Your task to perform on an android device: Open ESPN.com Image 0: 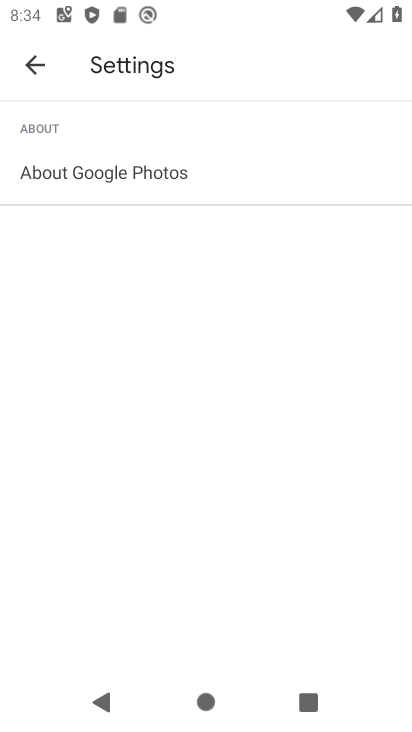
Step 0: press home button
Your task to perform on an android device: Open ESPN.com Image 1: 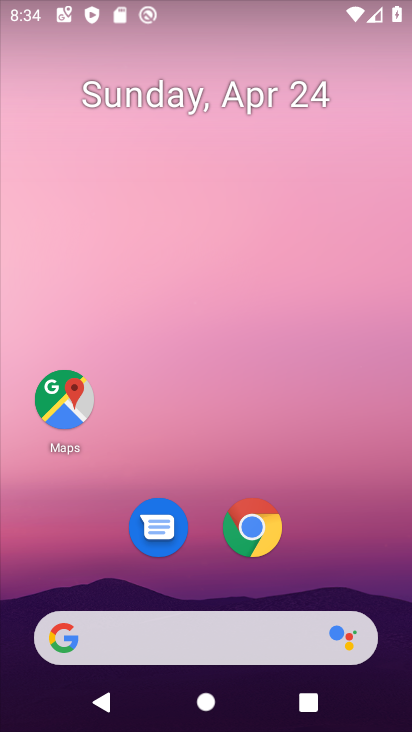
Step 1: drag from (375, 595) to (299, 2)
Your task to perform on an android device: Open ESPN.com Image 2: 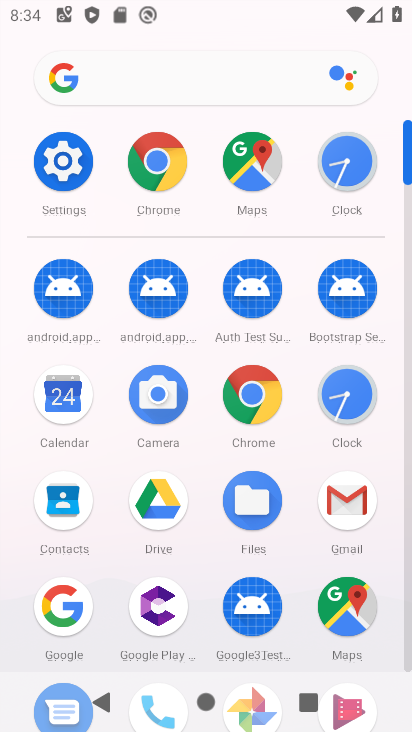
Step 2: click (169, 165)
Your task to perform on an android device: Open ESPN.com Image 3: 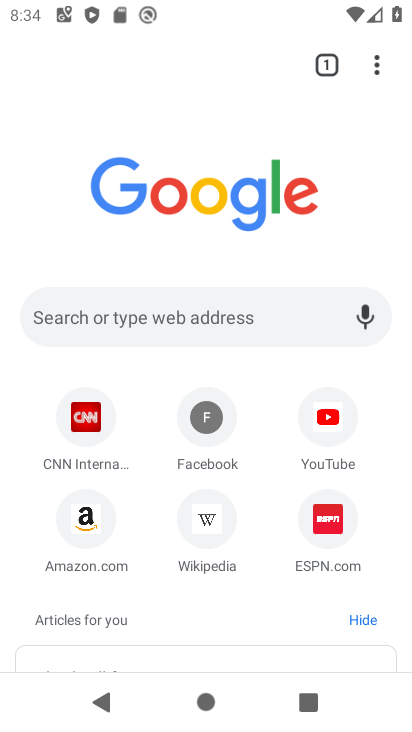
Step 3: click (329, 518)
Your task to perform on an android device: Open ESPN.com Image 4: 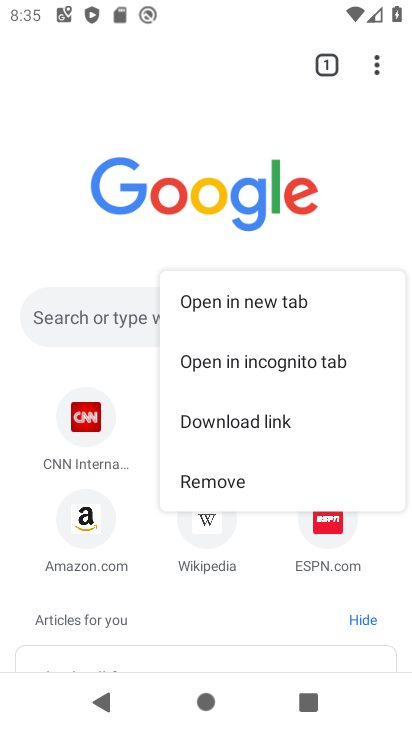
Step 4: click (329, 531)
Your task to perform on an android device: Open ESPN.com Image 5: 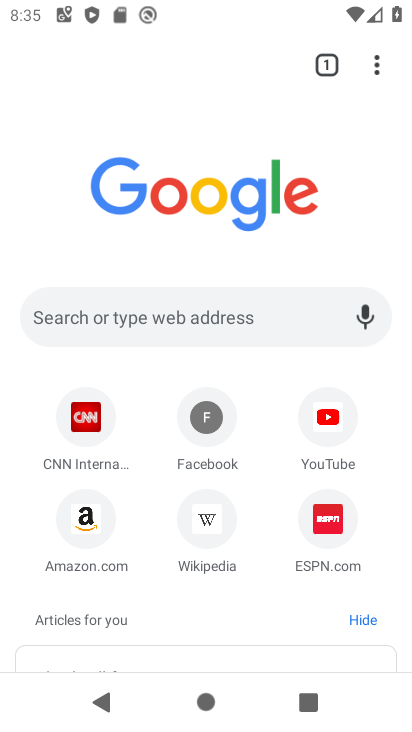
Step 5: click (320, 509)
Your task to perform on an android device: Open ESPN.com Image 6: 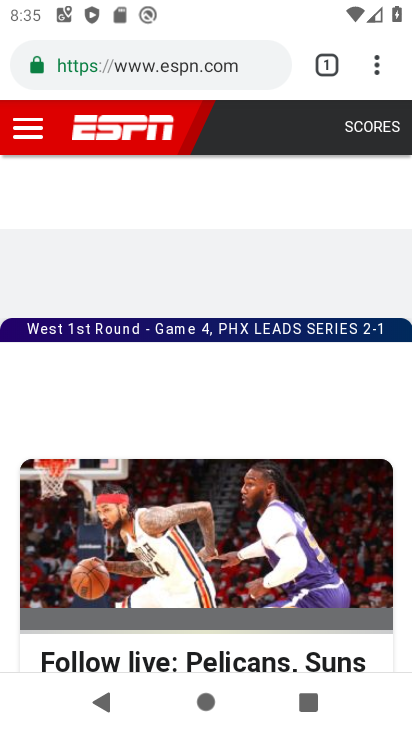
Step 6: task complete